Your task to perform on an android device: turn on wifi Image 0: 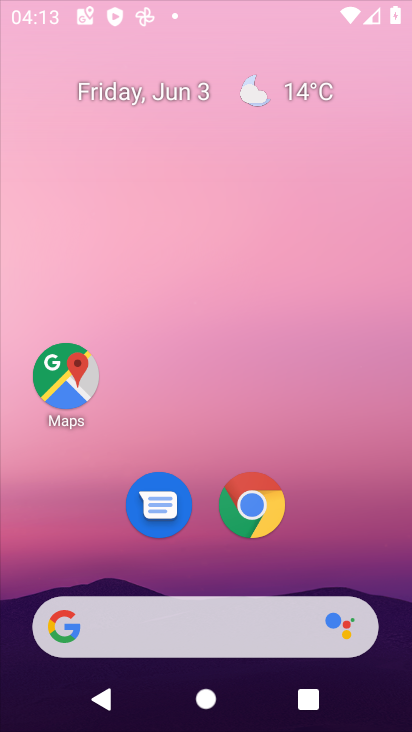
Step 0: press home button
Your task to perform on an android device: turn on wifi Image 1: 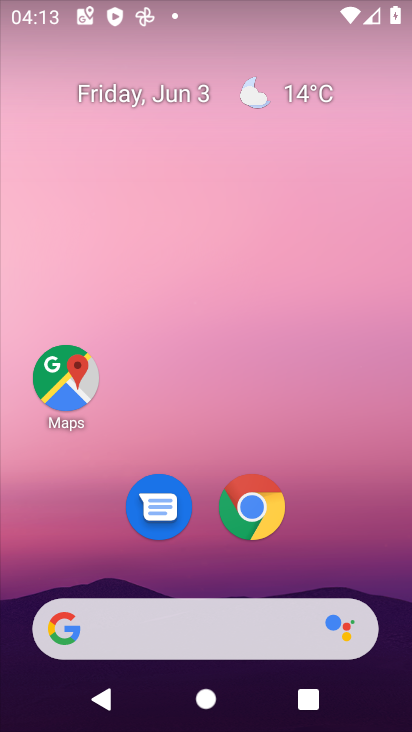
Step 1: task complete